Your task to perform on an android device: Open Android settings Image 0: 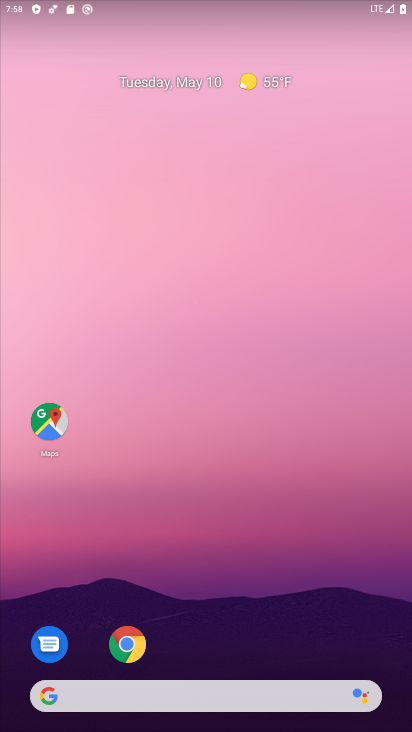
Step 0: drag from (212, 675) to (244, 63)
Your task to perform on an android device: Open Android settings Image 1: 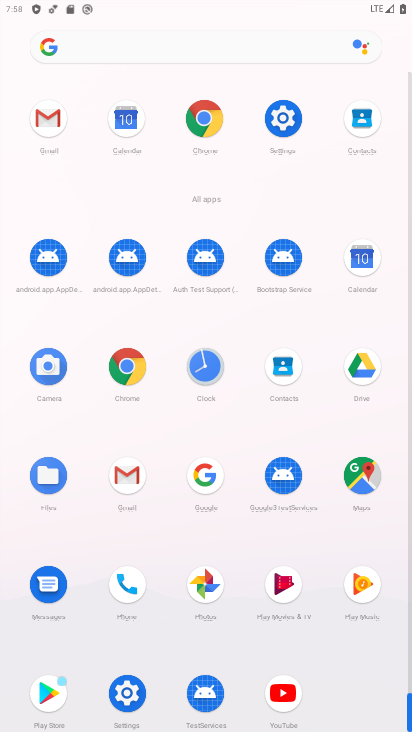
Step 1: click (285, 120)
Your task to perform on an android device: Open Android settings Image 2: 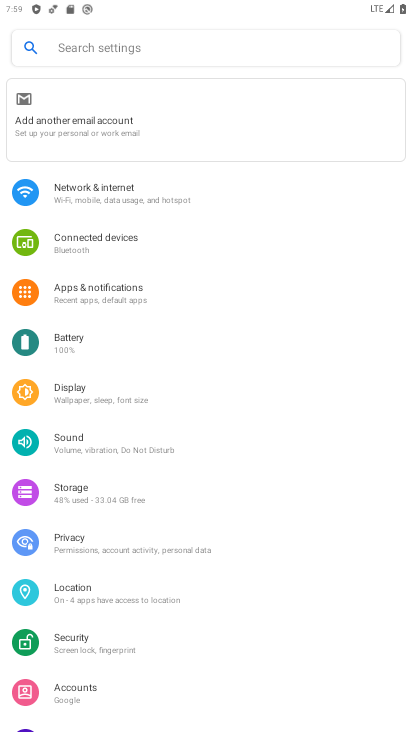
Step 2: drag from (196, 561) to (230, 114)
Your task to perform on an android device: Open Android settings Image 3: 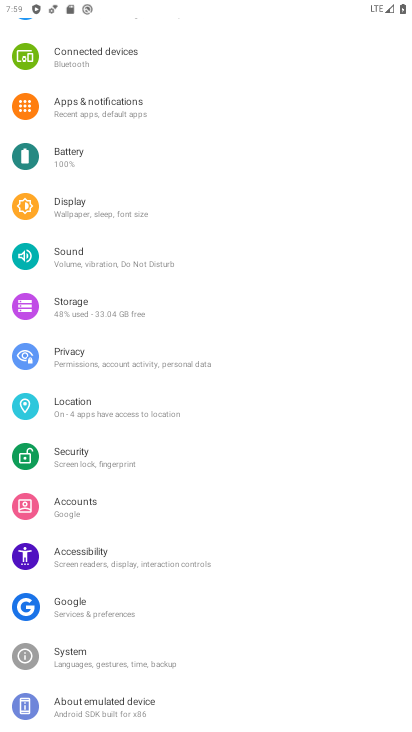
Step 3: drag from (196, 523) to (206, 185)
Your task to perform on an android device: Open Android settings Image 4: 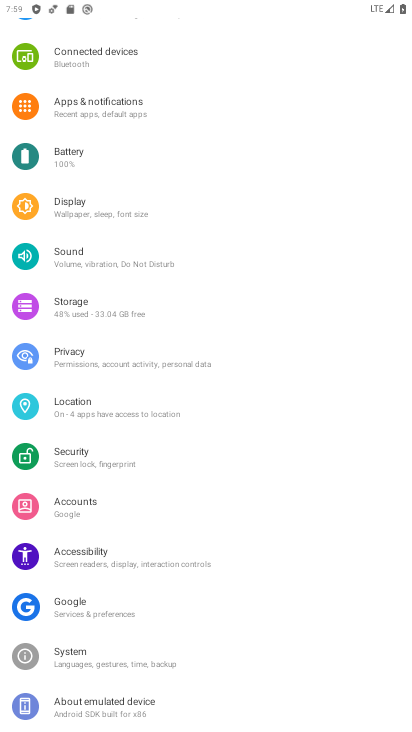
Step 4: drag from (178, 586) to (186, 154)
Your task to perform on an android device: Open Android settings Image 5: 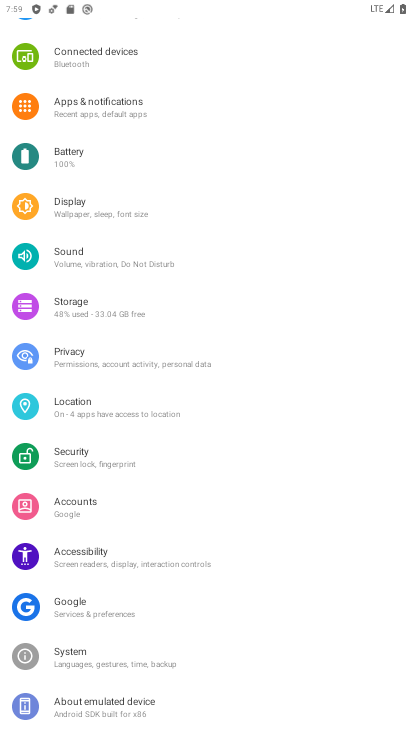
Step 5: click (152, 700)
Your task to perform on an android device: Open Android settings Image 6: 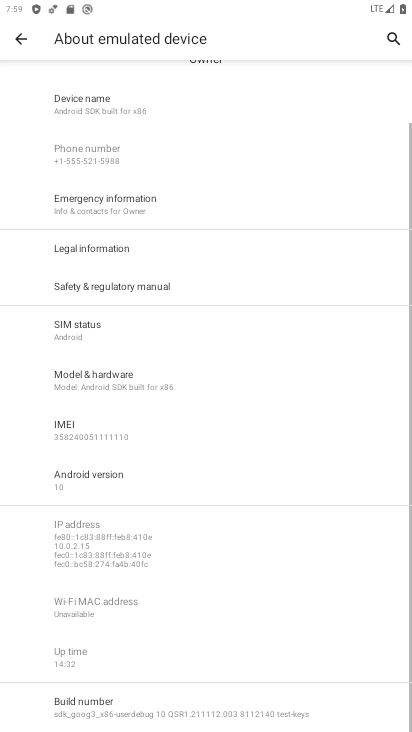
Step 6: drag from (155, 621) to (176, 483)
Your task to perform on an android device: Open Android settings Image 7: 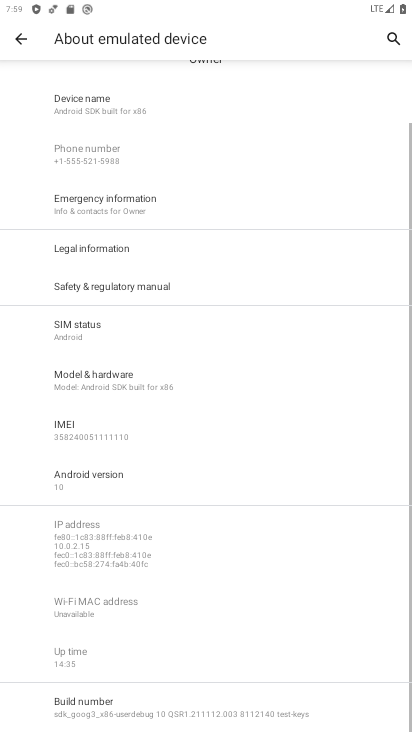
Step 7: click (146, 475)
Your task to perform on an android device: Open Android settings Image 8: 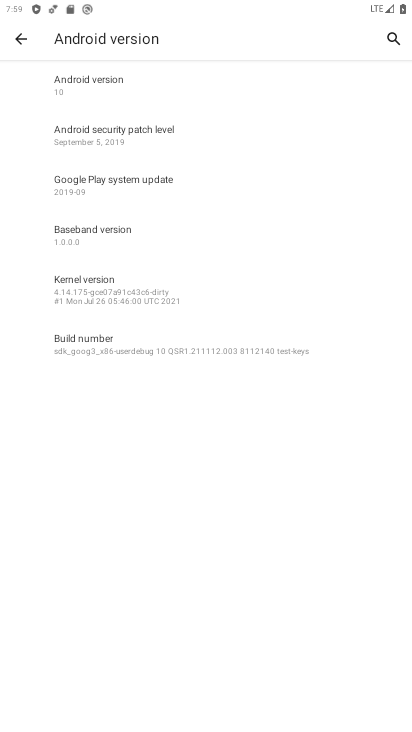
Step 8: task complete